Your task to perform on an android device: What's on my calendar tomorrow? Image 0: 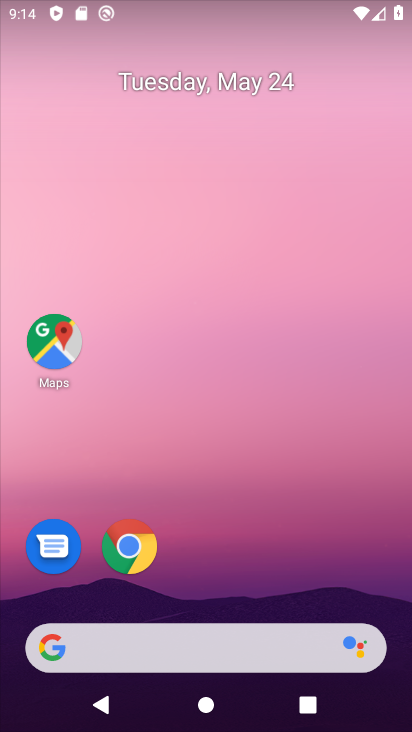
Step 0: drag from (219, 533) to (201, 98)
Your task to perform on an android device: What's on my calendar tomorrow? Image 1: 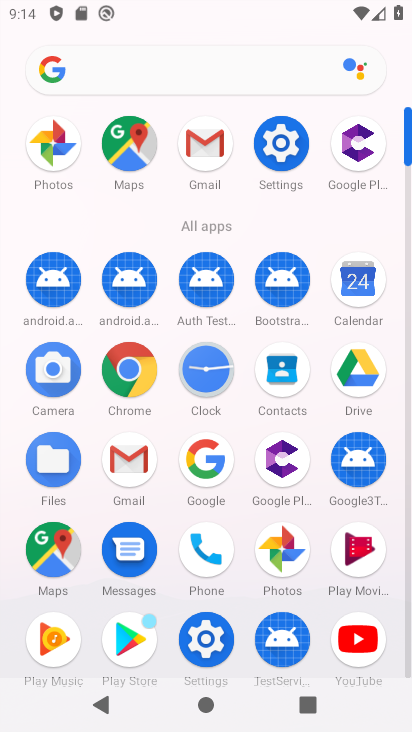
Step 1: click (357, 284)
Your task to perform on an android device: What's on my calendar tomorrow? Image 2: 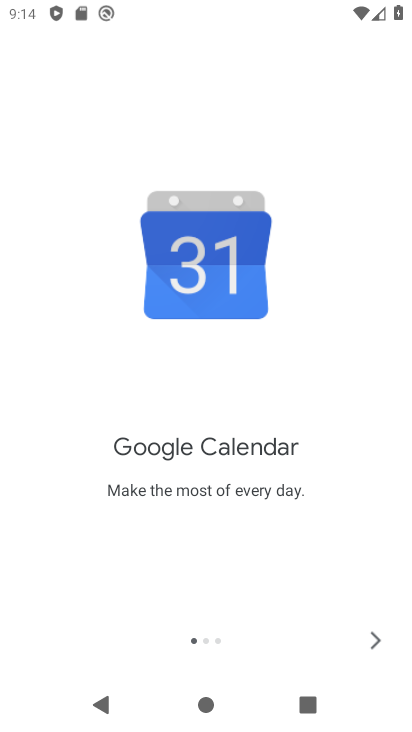
Step 2: click (376, 638)
Your task to perform on an android device: What's on my calendar tomorrow? Image 3: 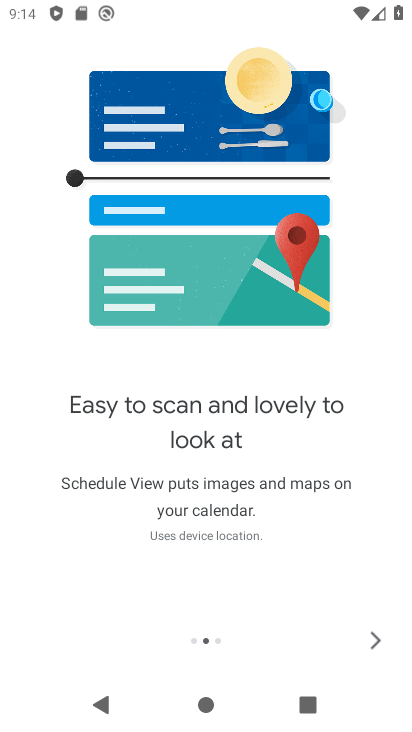
Step 3: click (376, 638)
Your task to perform on an android device: What's on my calendar tomorrow? Image 4: 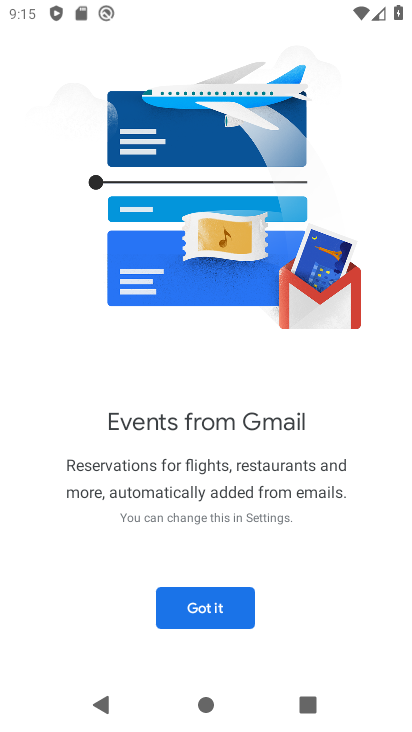
Step 4: click (207, 597)
Your task to perform on an android device: What's on my calendar tomorrow? Image 5: 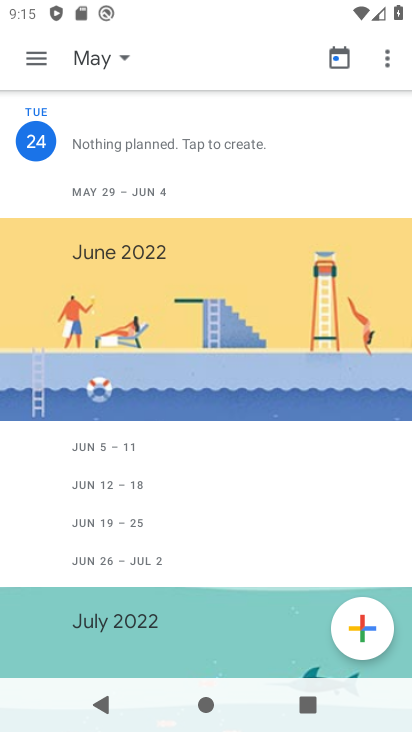
Step 5: click (36, 49)
Your task to perform on an android device: What's on my calendar tomorrow? Image 6: 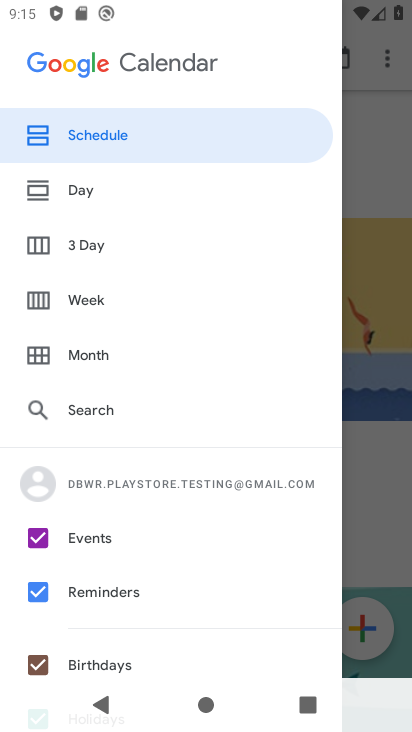
Step 6: click (76, 182)
Your task to perform on an android device: What's on my calendar tomorrow? Image 7: 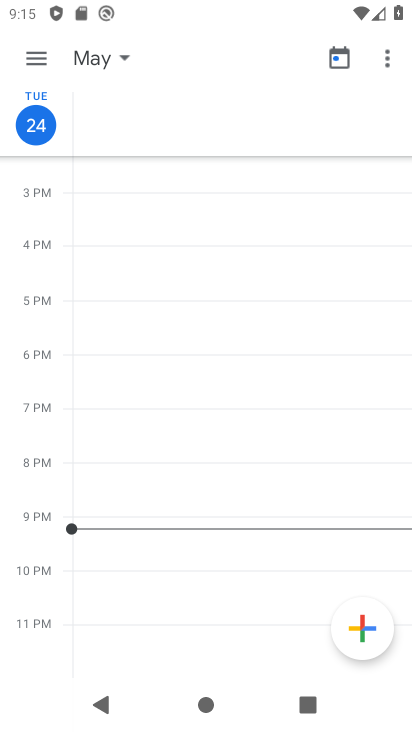
Step 7: click (124, 55)
Your task to perform on an android device: What's on my calendar tomorrow? Image 8: 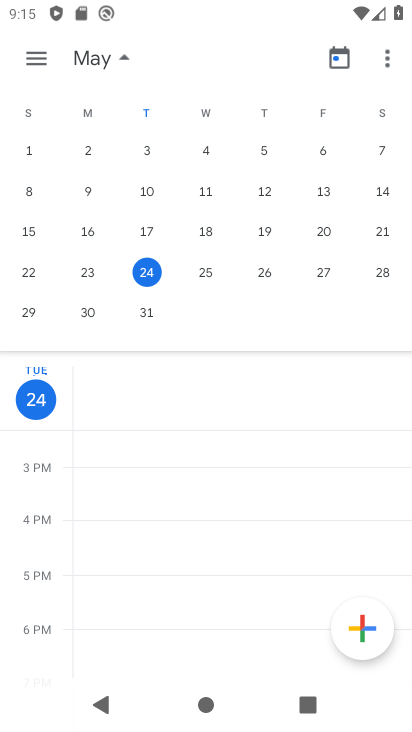
Step 8: click (207, 262)
Your task to perform on an android device: What's on my calendar tomorrow? Image 9: 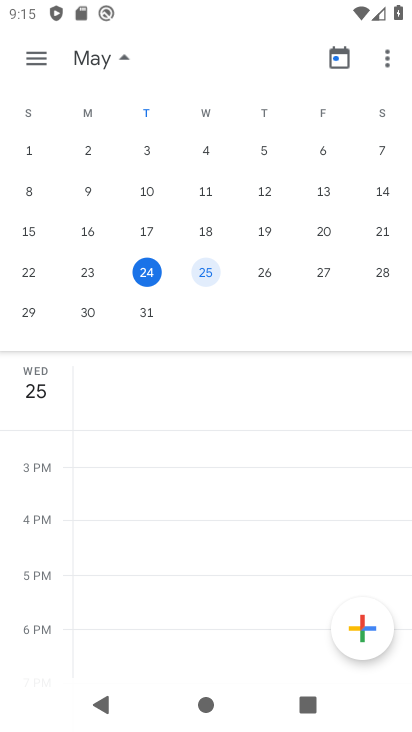
Step 9: task complete